Your task to perform on an android device: Do I have any events this weekend? Image 0: 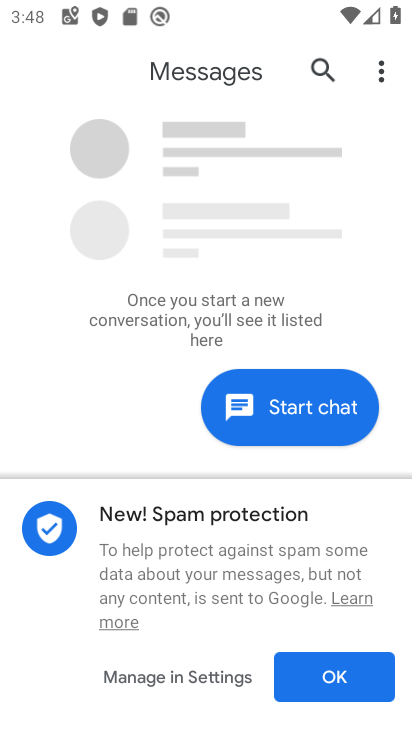
Step 0: press home button
Your task to perform on an android device: Do I have any events this weekend? Image 1: 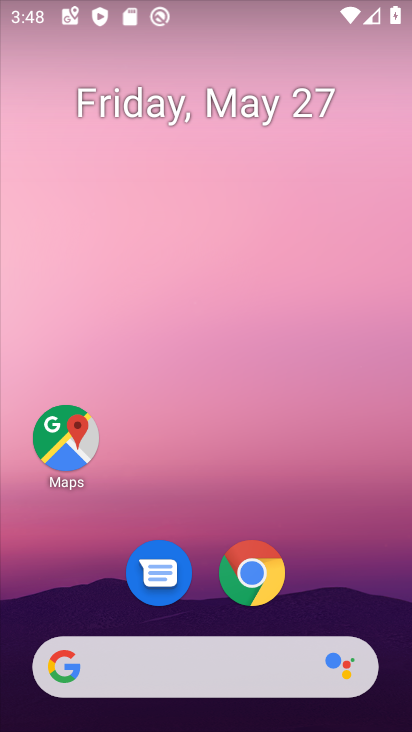
Step 1: drag from (240, 500) to (210, 19)
Your task to perform on an android device: Do I have any events this weekend? Image 2: 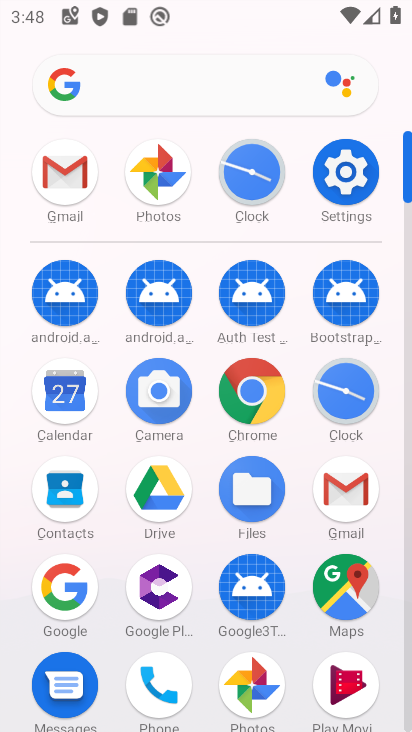
Step 2: click (53, 386)
Your task to perform on an android device: Do I have any events this weekend? Image 3: 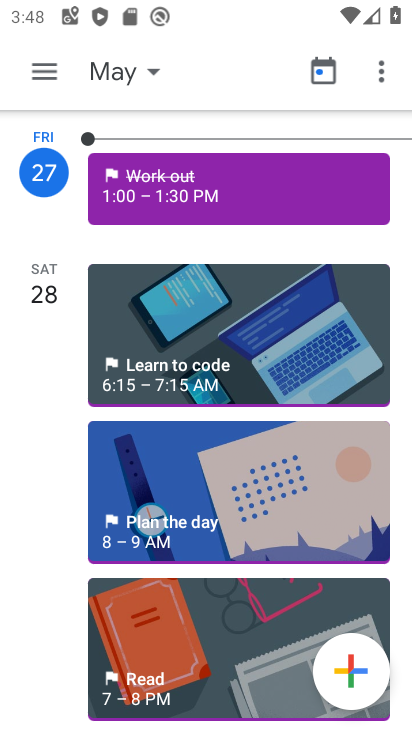
Step 3: task complete